Your task to perform on an android device: Open maps Image 0: 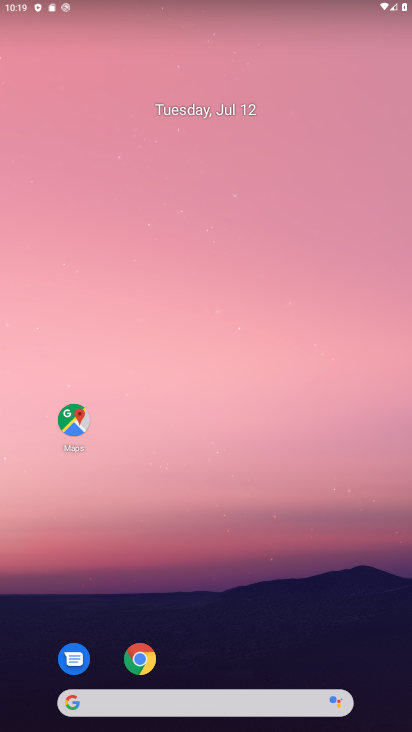
Step 0: click (77, 420)
Your task to perform on an android device: Open maps Image 1: 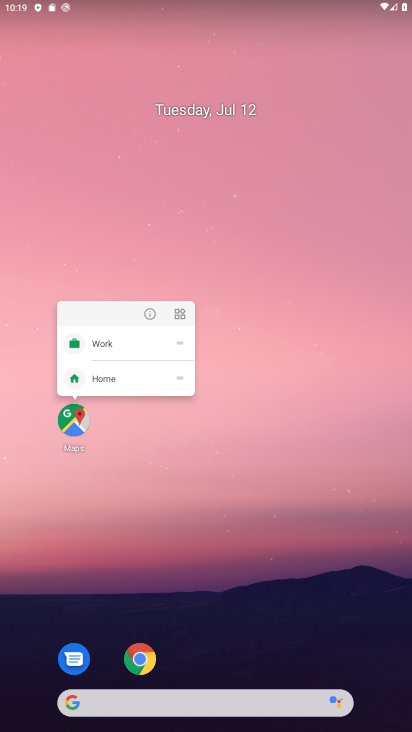
Step 1: click (74, 427)
Your task to perform on an android device: Open maps Image 2: 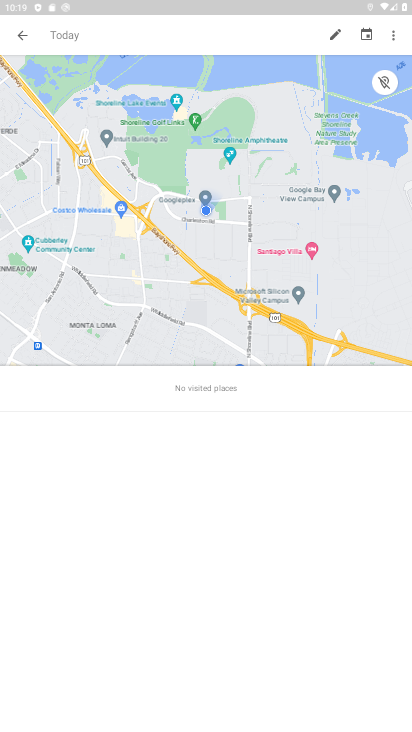
Step 2: task complete